Your task to perform on an android device: delete browsing data in the chrome app Image 0: 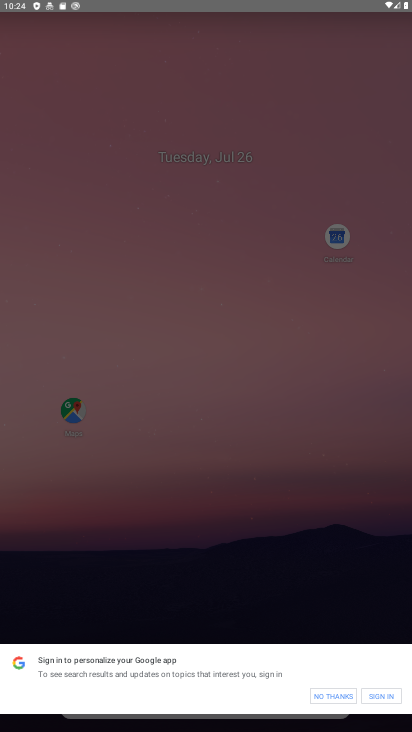
Step 0: press back button
Your task to perform on an android device: delete browsing data in the chrome app Image 1: 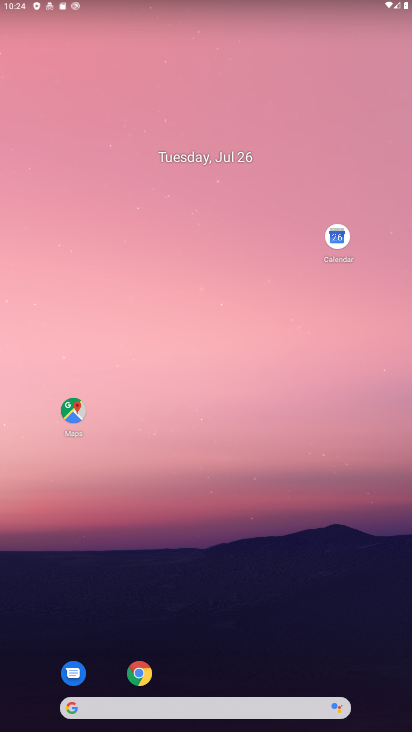
Step 1: press back button
Your task to perform on an android device: delete browsing data in the chrome app Image 2: 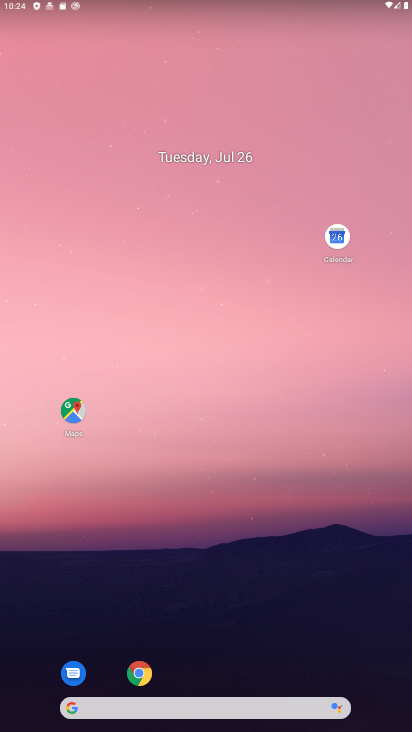
Step 2: press back button
Your task to perform on an android device: delete browsing data in the chrome app Image 3: 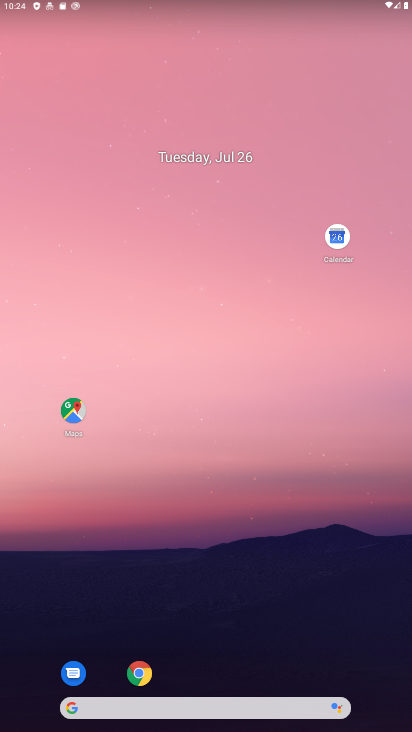
Step 3: drag from (192, 137) to (169, 16)
Your task to perform on an android device: delete browsing data in the chrome app Image 4: 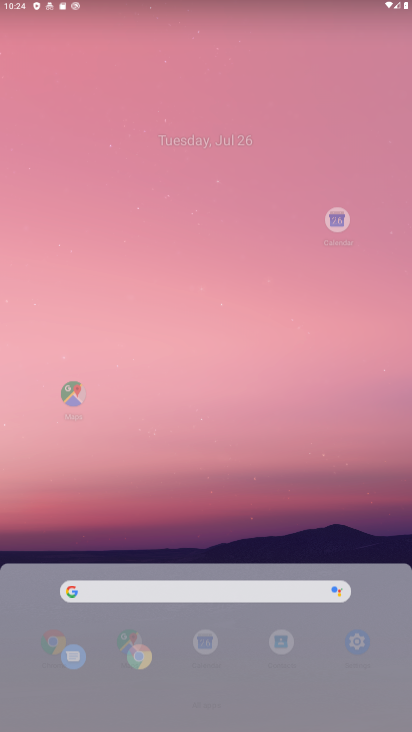
Step 4: drag from (249, 229) to (216, 32)
Your task to perform on an android device: delete browsing data in the chrome app Image 5: 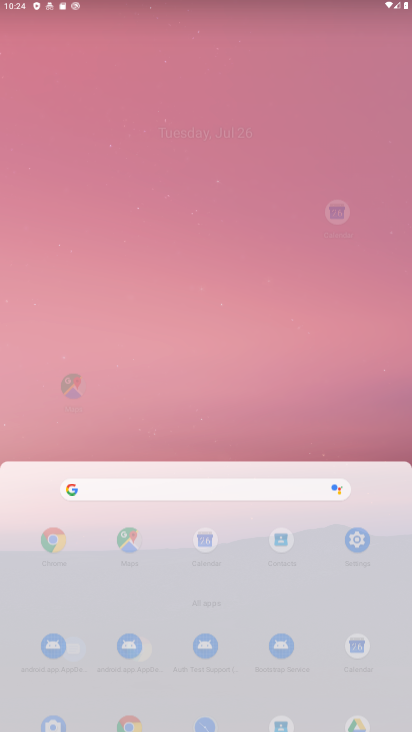
Step 5: drag from (192, 425) to (155, 26)
Your task to perform on an android device: delete browsing data in the chrome app Image 6: 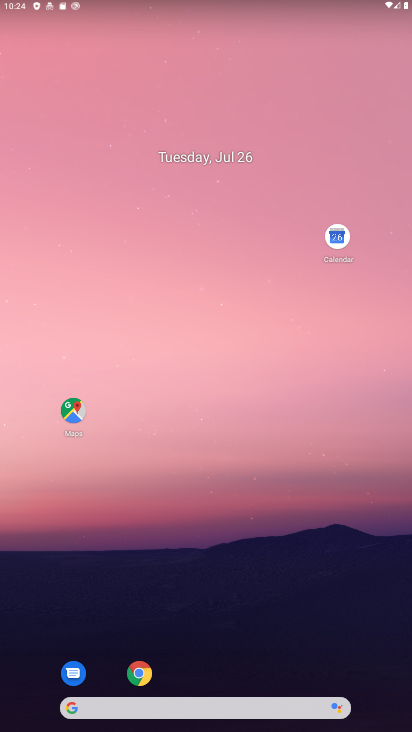
Step 6: drag from (166, 444) to (101, 27)
Your task to perform on an android device: delete browsing data in the chrome app Image 7: 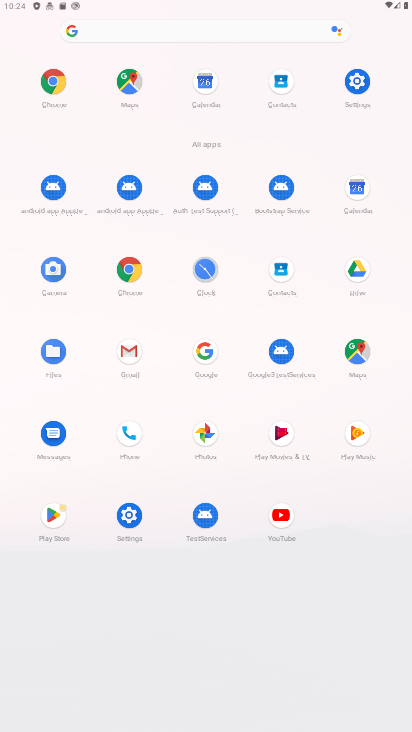
Step 7: click (150, 40)
Your task to perform on an android device: delete browsing data in the chrome app Image 8: 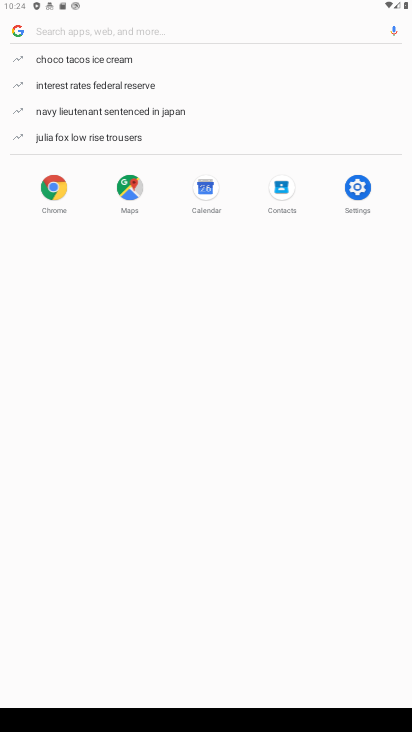
Step 8: click (51, 83)
Your task to perform on an android device: delete browsing data in the chrome app Image 9: 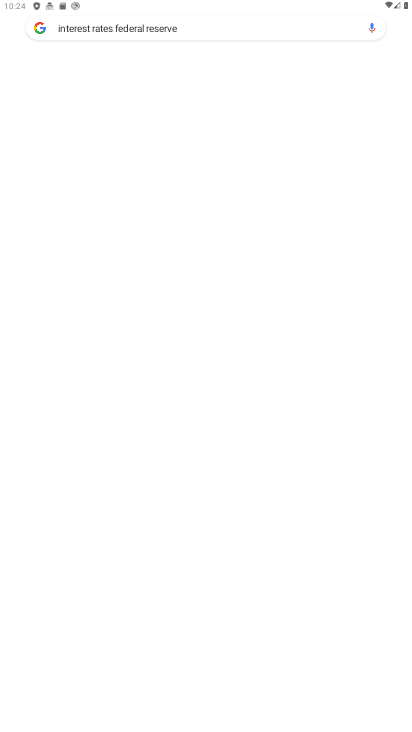
Step 9: click (54, 175)
Your task to perform on an android device: delete browsing data in the chrome app Image 10: 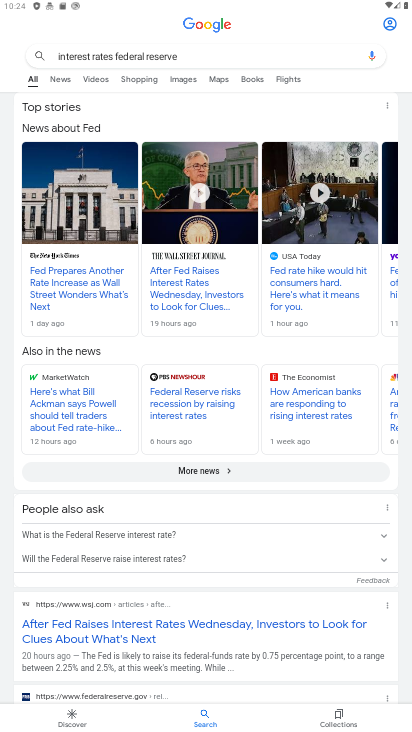
Step 10: drag from (340, 263) to (340, 432)
Your task to perform on an android device: delete browsing data in the chrome app Image 11: 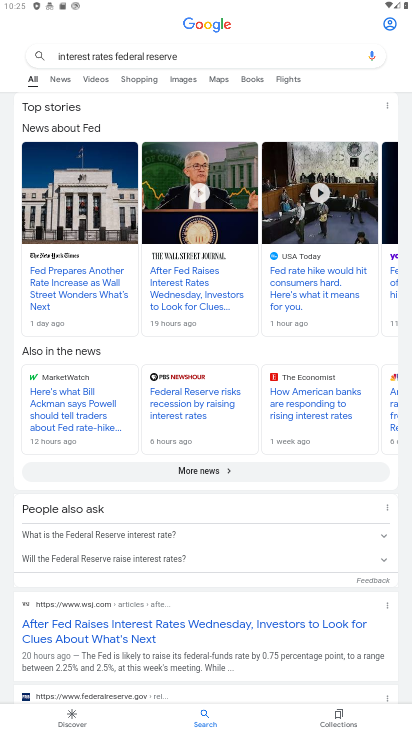
Step 11: drag from (334, 136) to (371, 403)
Your task to perform on an android device: delete browsing data in the chrome app Image 12: 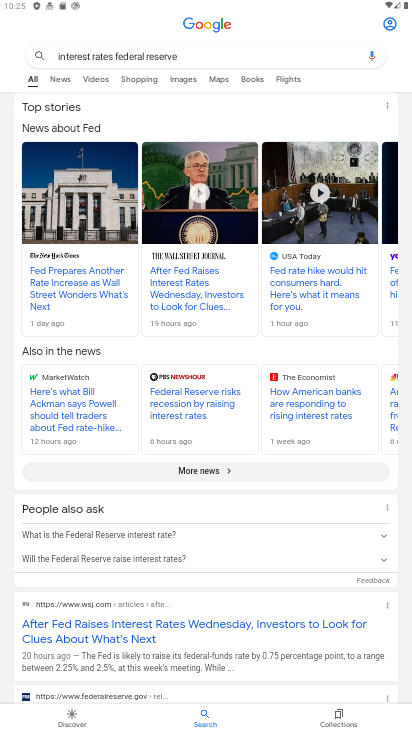
Step 12: press back button
Your task to perform on an android device: delete browsing data in the chrome app Image 13: 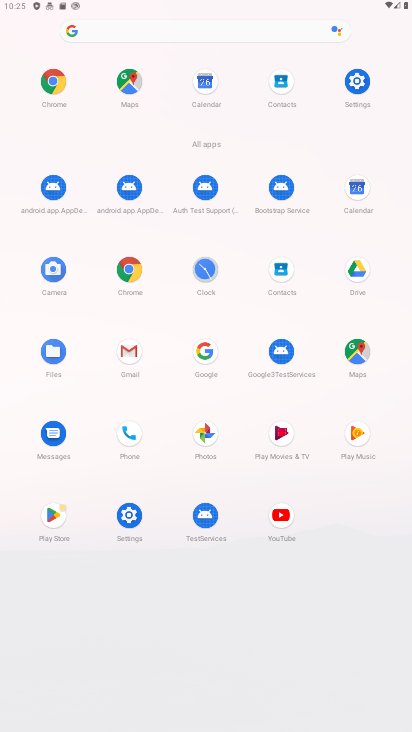
Step 13: click (48, 81)
Your task to perform on an android device: delete browsing data in the chrome app Image 14: 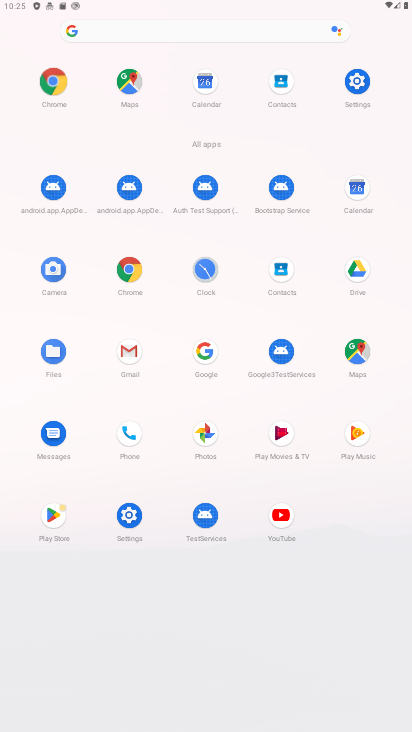
Step 14: click (47, 82)
Your task to perform on an android device: delete browsing data in the chrome app Image 15: 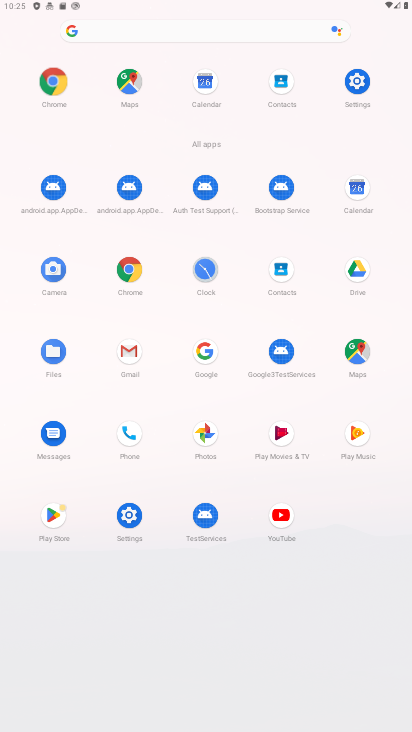
Step 15: click (49, 81)
Your task to perform on an android device: delete browsing data in the chrome app Image 16: 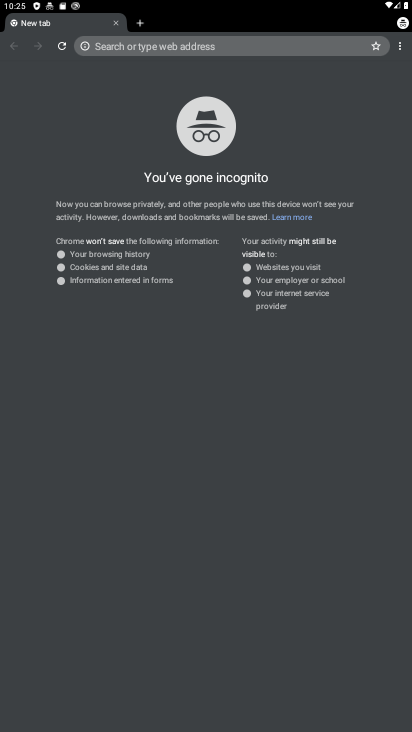
Step 16: drag from (314, 128) to (314, 214)
Your task to perform on an android device: delete browsing data in the chrome app Image 17: 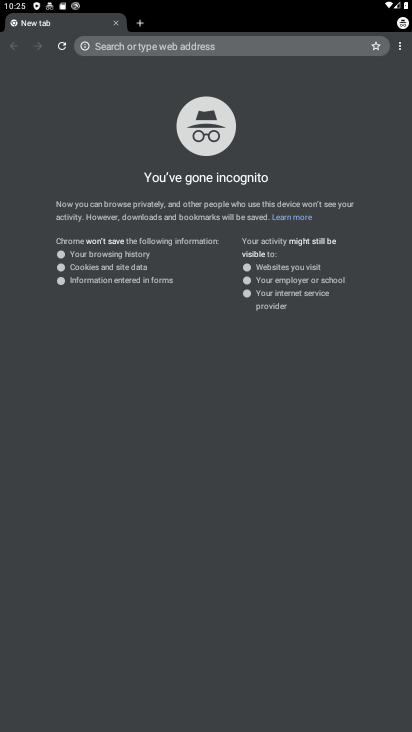
Step 17: drag from (403, 48) to (308, 192)
Your task to perform on an android device: delete browsing data in the chrome app Image 18: 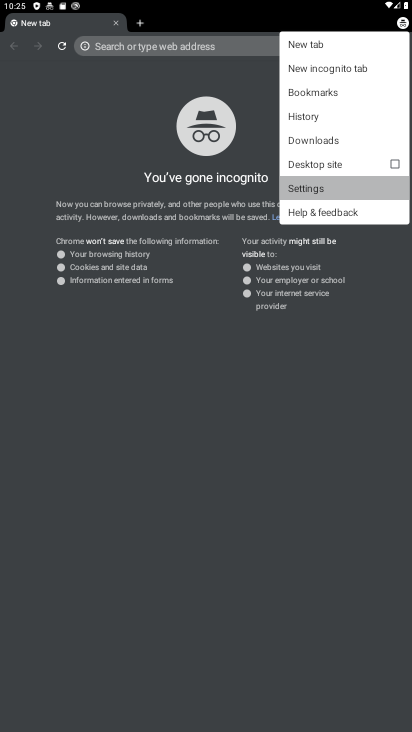
Step 18: click (307, 193)
Your task to perform on an android device: delete browsing data in the chrome app Image 19: 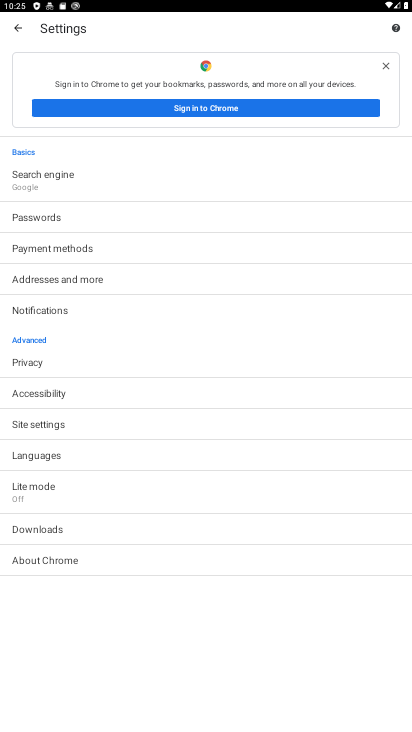
Step 19: click (10, 19)
Your task to perform on an android device: delete browsing data in the chrome app Image 20: 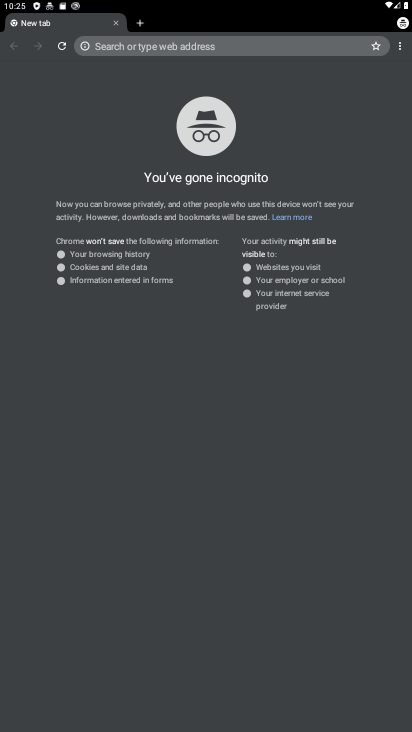
Step 20: drag from (394, 44) to (303, 114)
Your task to perform on an android device: delete browsing data in the chrome app Image 21: 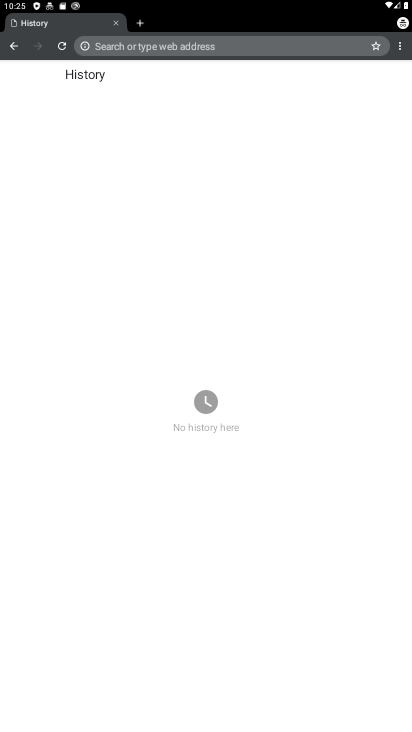
Step 21: click (304, 114)
Your task to perform on an android device: delete browsing data in the chrome app Image 22: 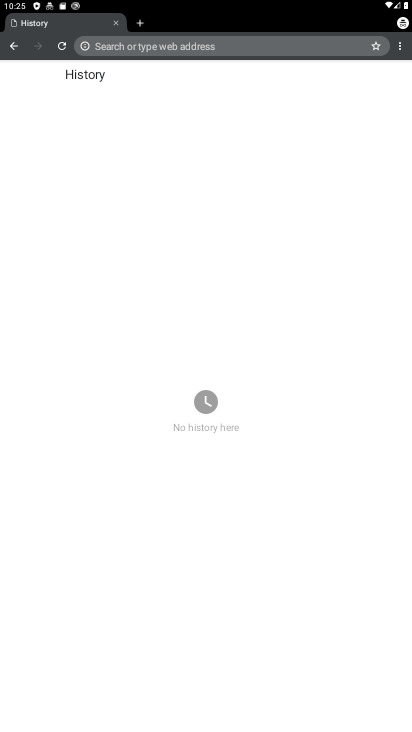
Step 22: task complete